Your task to perform on an android device: Go to Google Image 0: 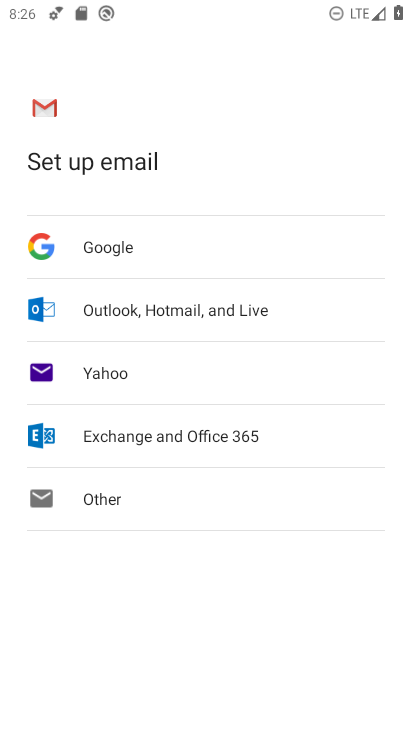
Step 0: press back button
Your task to perform on an android device: Go to Google Image 1: 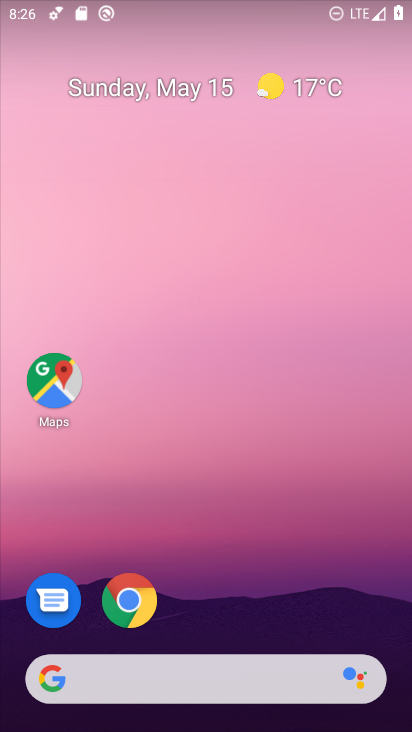
Step 1: drag from (247, 595) to (191, 165)
Your task to perform on an android device: Go to Google Image 2: 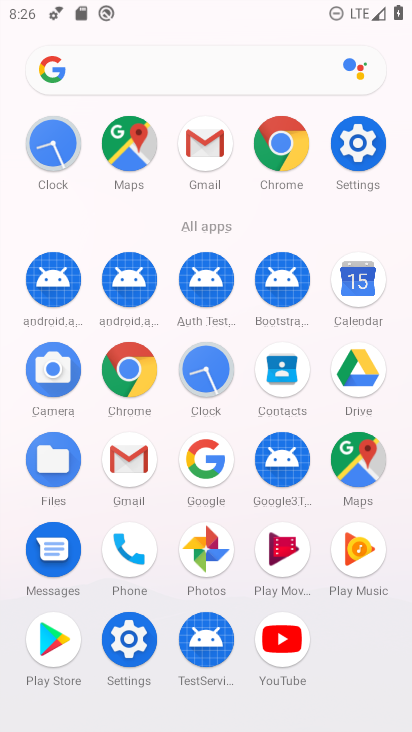
Step 2: click (202, 461)
Your task to perform on an android device: Go to Google Image 3: 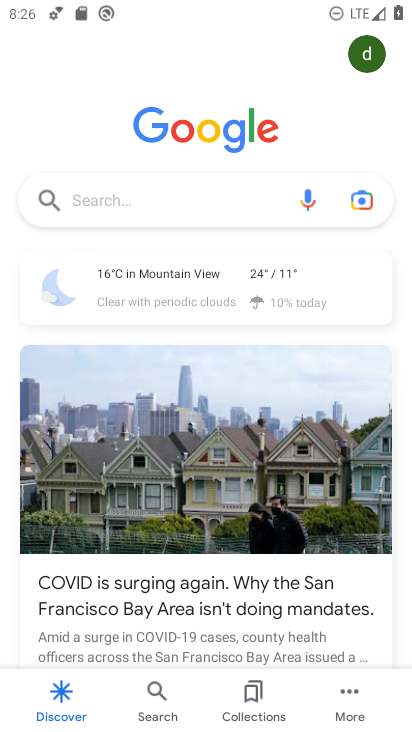
Step 3: task complete